Your task to perform on an android device: see sites visited before in the chrome app Image 0: 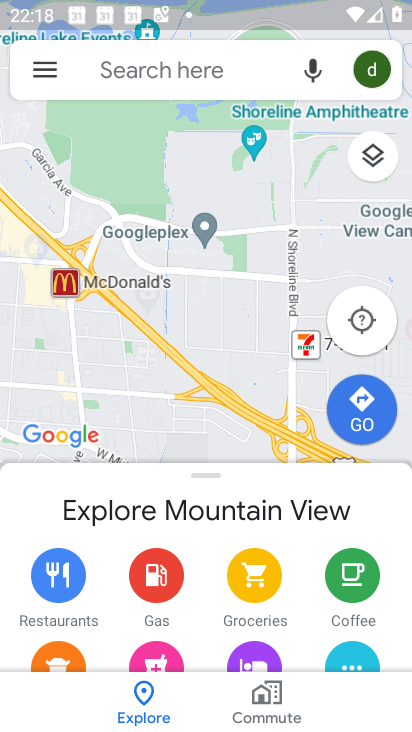
Step 0: press home button
Your task to perform on an android device: see sites visited before in the chrome app Image 1: 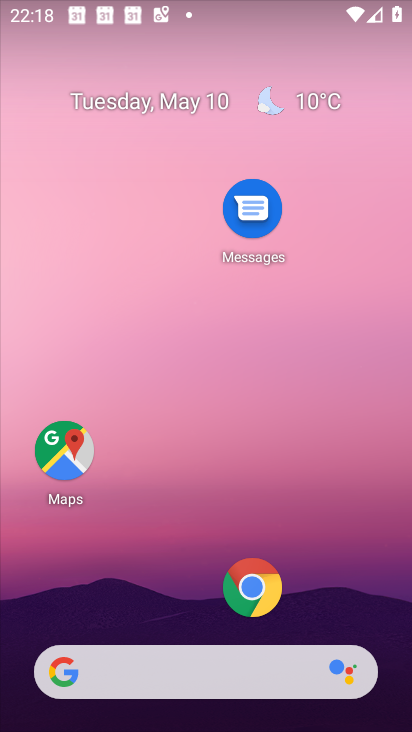
Step 1: click (268, 592)
Your task to perform on an android device: see sites visited before in the chrome app Image 2: 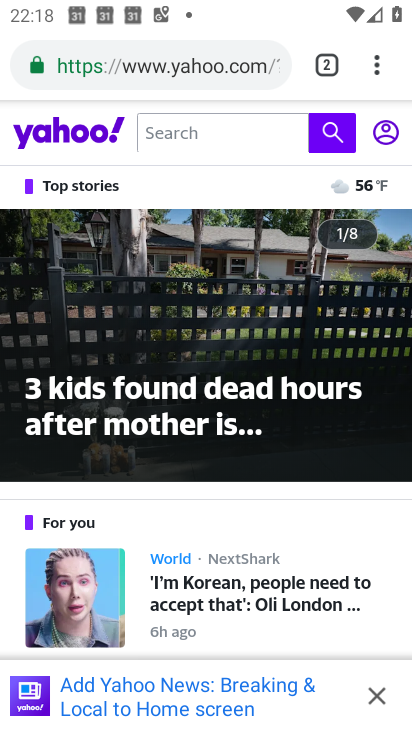
Step 2: click (380, 74)
Your task to perform on an android device: see sites visited before in the chrome app Image 3: 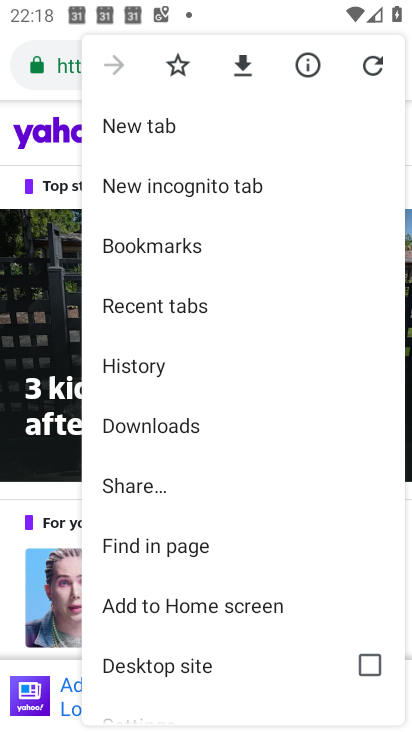
Step 3: drag from (153, 664) to (209, 338)
Your task to perform on an android device: see sites visited before in the chrome app Image 4: 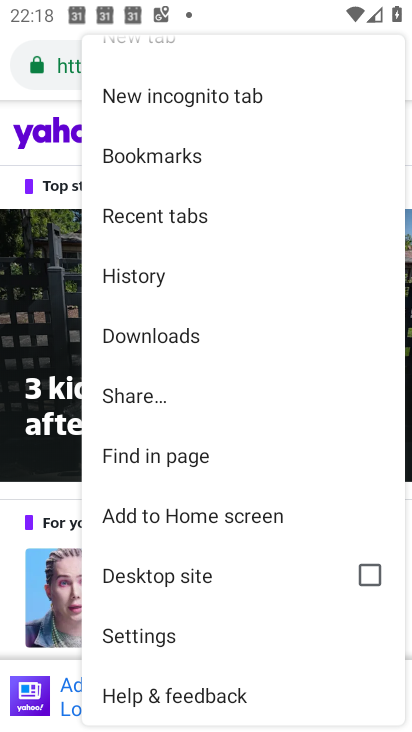
Step 4: click (159, 273)
Your task to perform on an android device: see sites visited before in the chrome app Image 5: 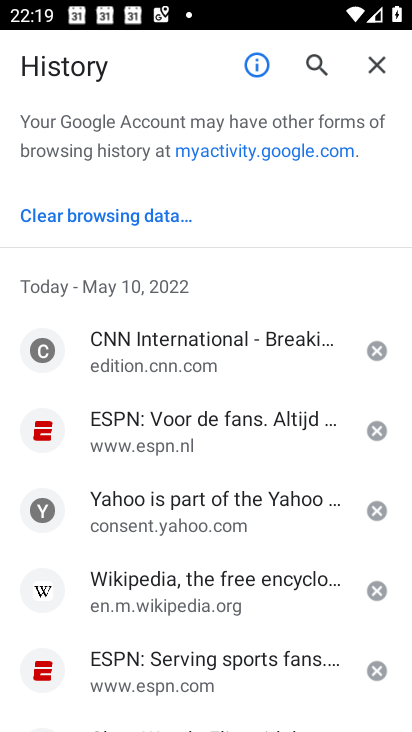
Step 5: task complete